Your task to perform on an android device: Add amazon basics triple a to the cart on amazon, then select checkout. Image 0: 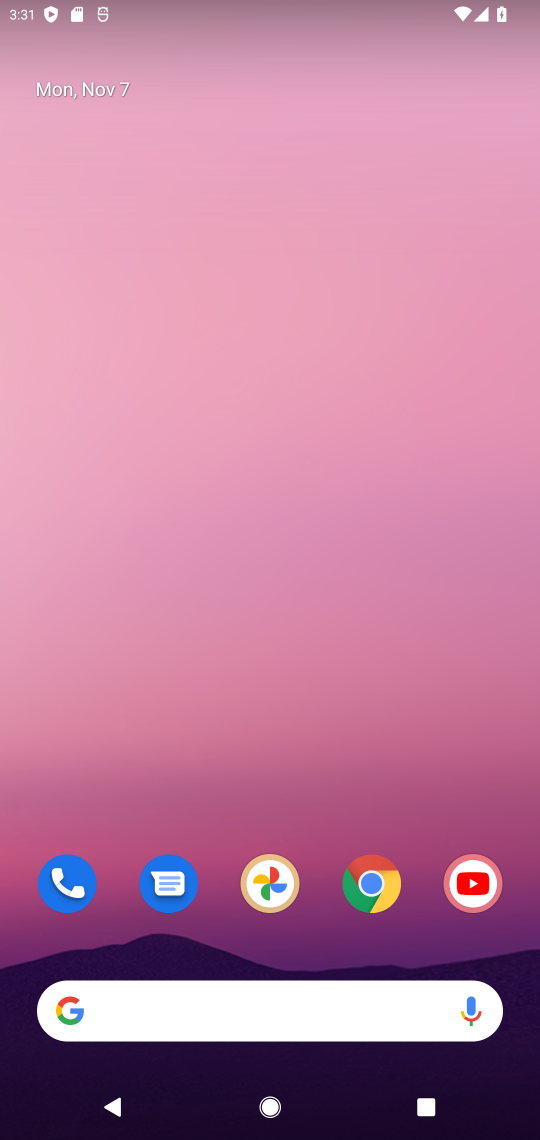
Step 0: click (369, 883)
Your task to perform on an android device: Add amazon basics triple a to the cart on amazon, then select checkout. Image 1: 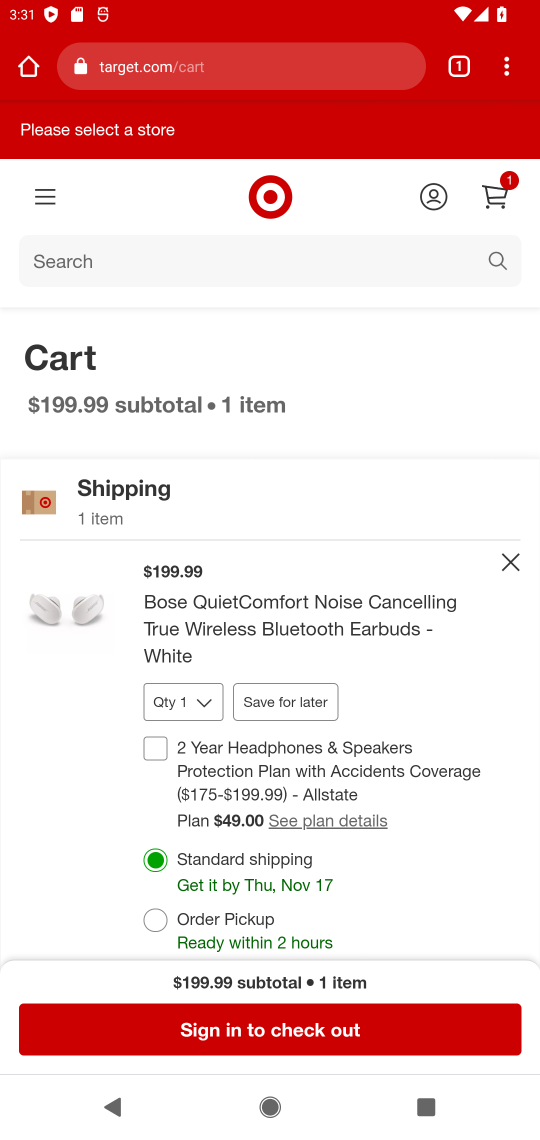
Step 1: click (320, 61)
Your task to perform on an android device: Add amazon basics triple a to the cart on amazon, then select checkout. Image 2: 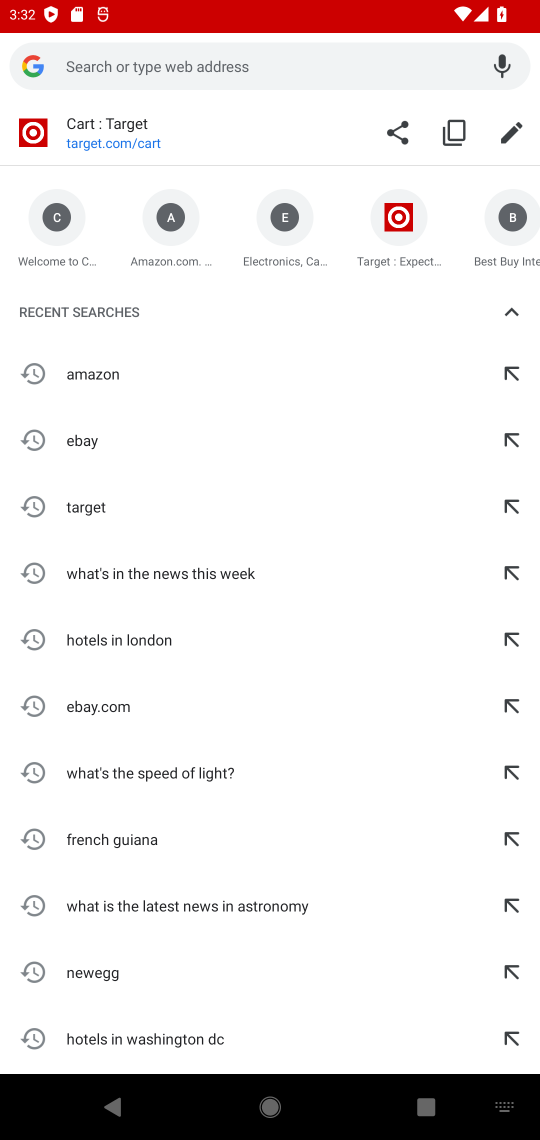
Step 2: type "amazon"
Your task to perform on an android device: Add amazon basics triple a to the cart on amazon, then select checkout. Image 3: 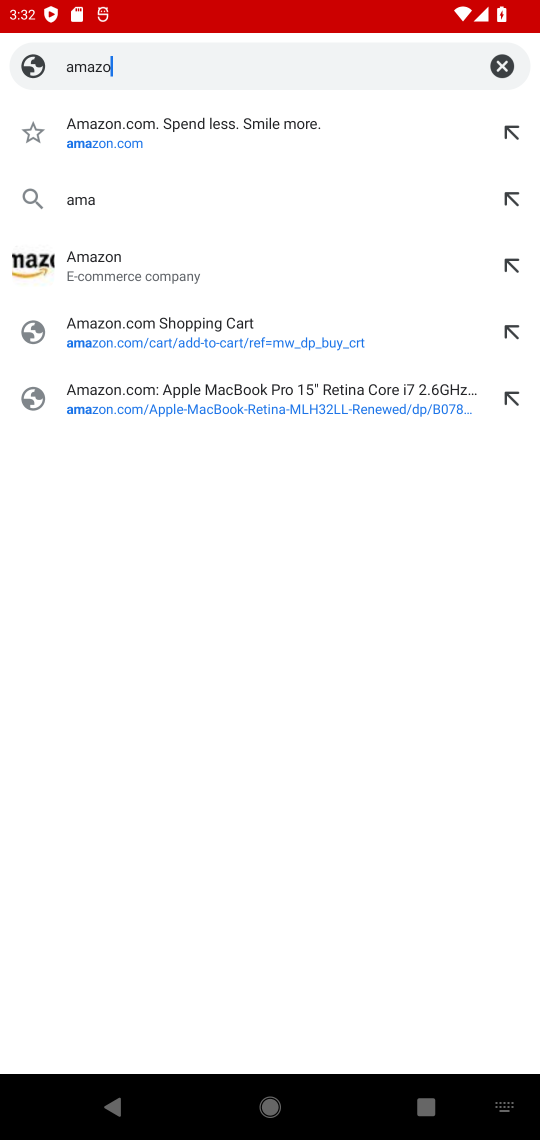
Step 3: press enter
Your task to perform on an android device: Add amazon basics triple a to the cart on amazon, then select checkout. Image 4: 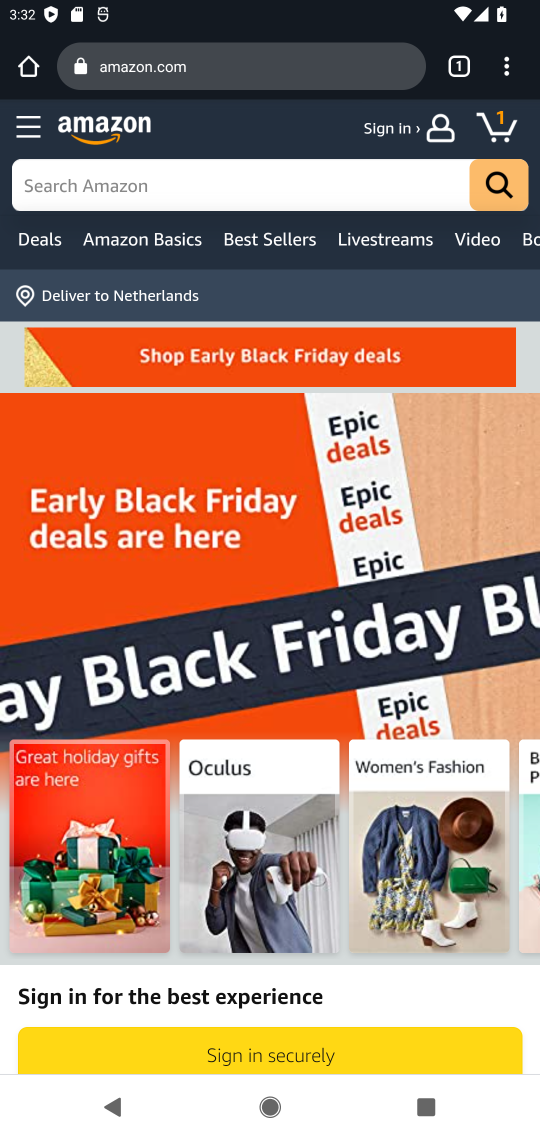
Step 4: click (134, 178)
Your task to perform on an android device: Add amazon basics triple a to the cart on amazon, then select checkout. Image 5: 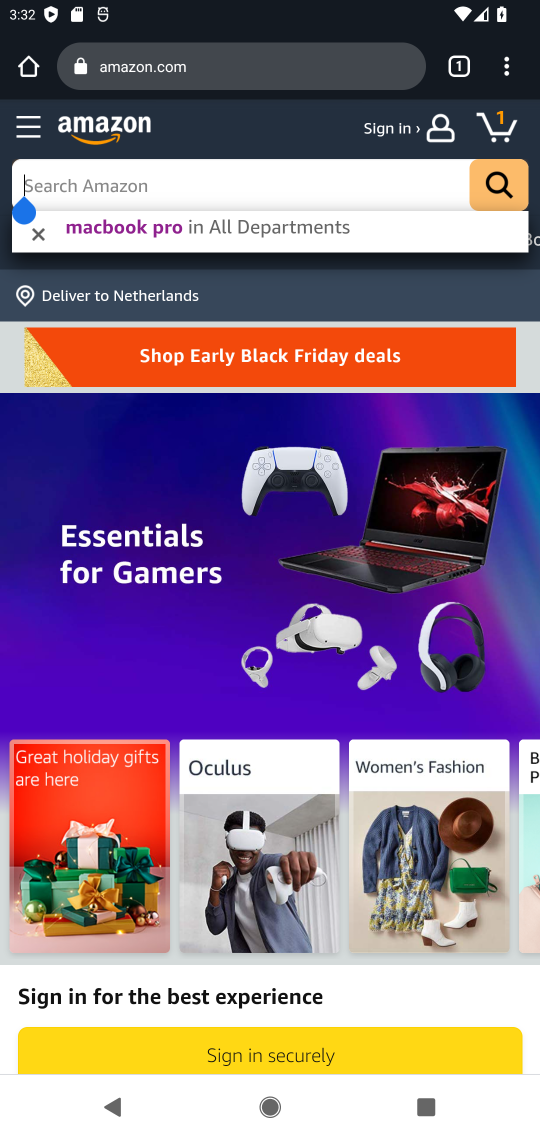
Step 5: type "amazon basics triple a "
Your task to perform on an android device: Add amazon basics triple a to the cart on amazon, then select checkout. Image 6: 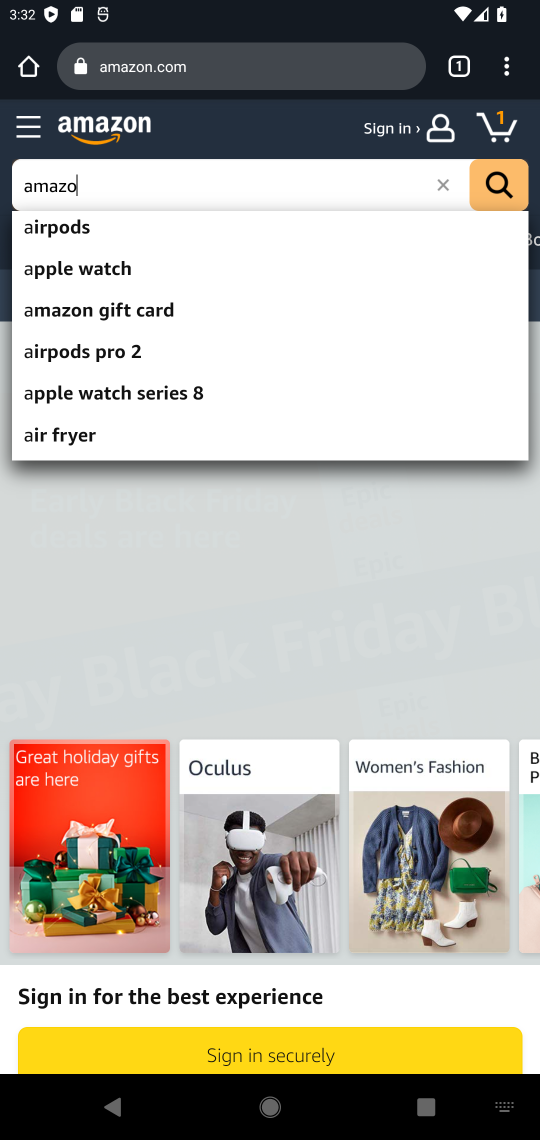
Step 6: press enter
Your task to perform on an android device: Add amazon basics triple a to the cart on amazon, then select checkout. Image 7: 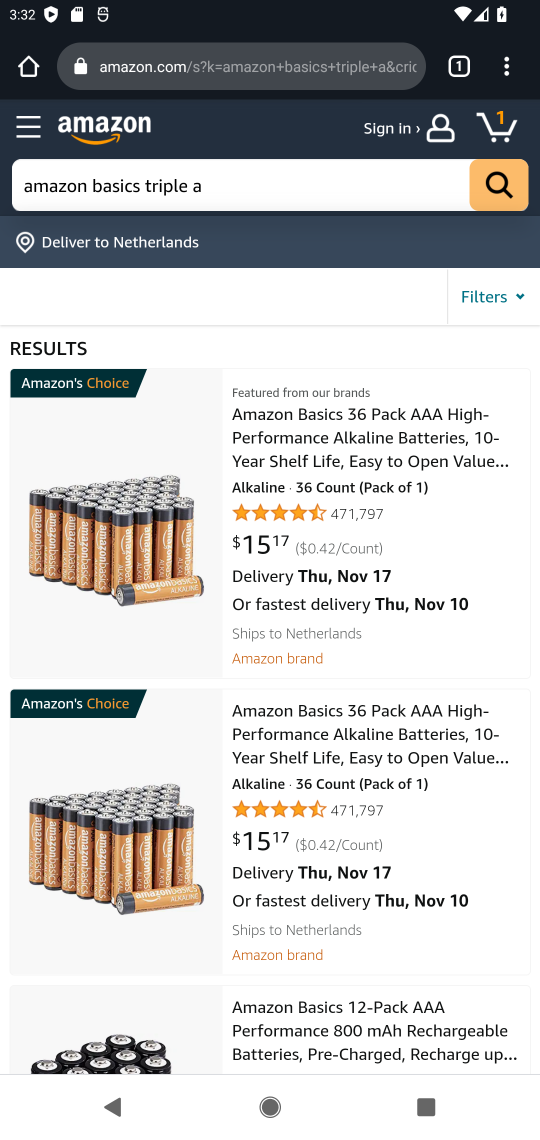
Step 7: click (343, 448)
Your task to perform on an android device: Add amazon basics triple a to the cart on amazon, then select checkout. Image 8: 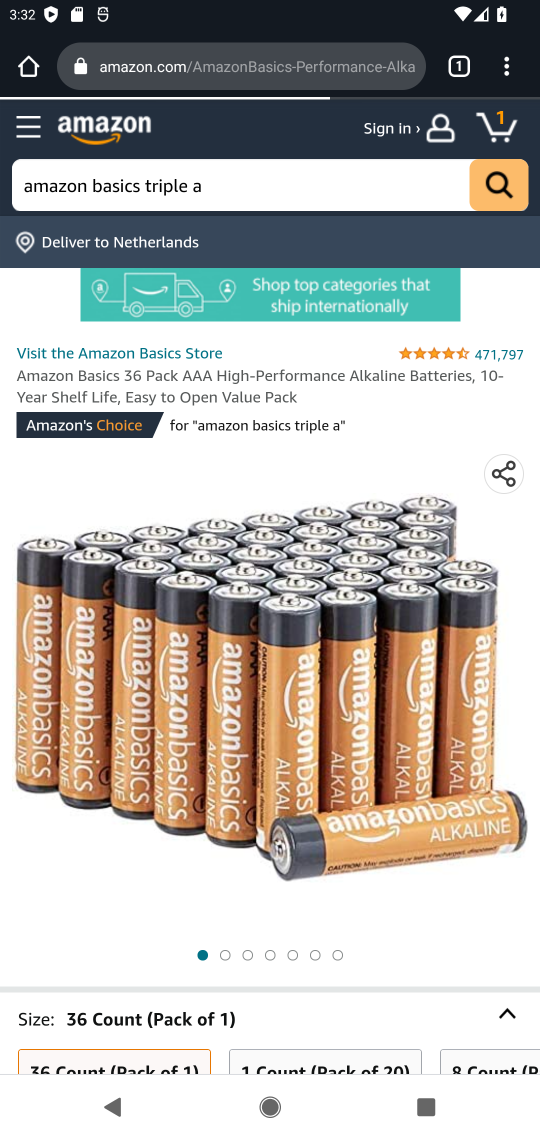
Step 8: drag from (383, 952) to (505, 195)
Your task to perform on an android device: Add amazon basics triple a to the cart on amazon, then select checkout. Image 9: 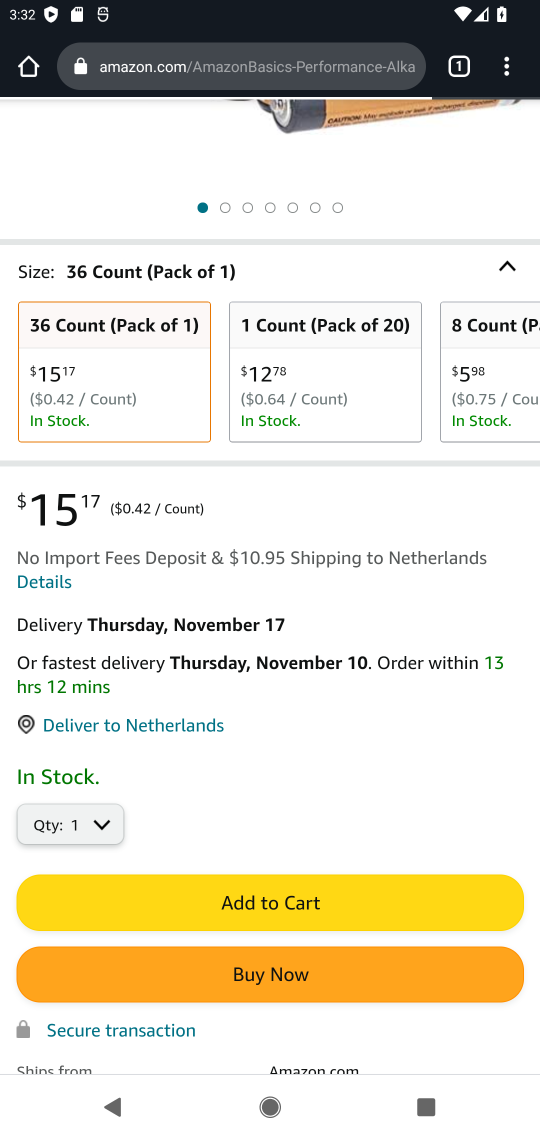
Step 9: click (311, 903)
Your task to perform on an android device: Add amazon basics triple a to the cart on amazon, then select checkout. Image 10: 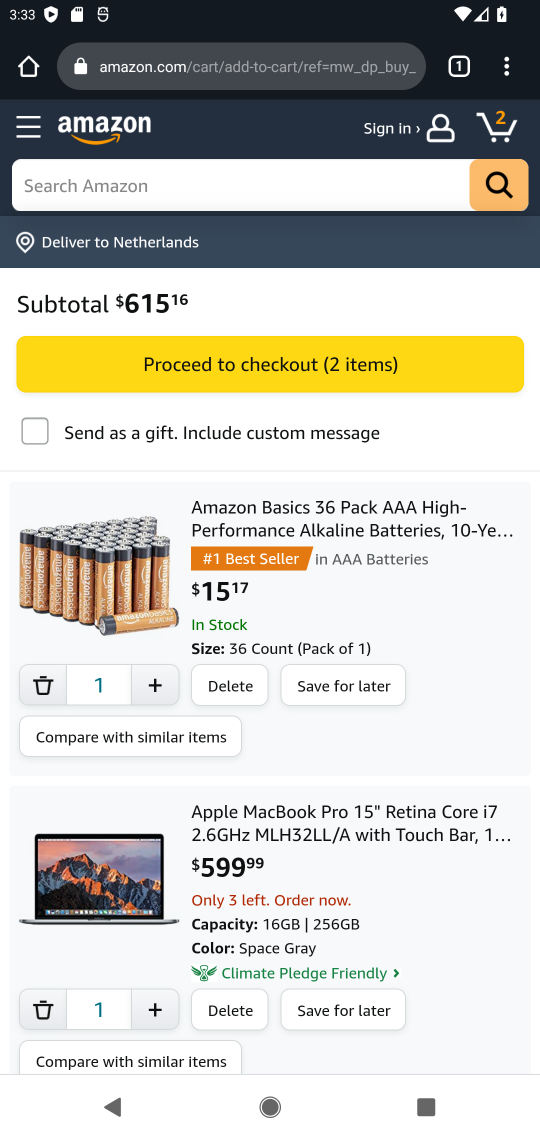
Step 10: drag from (405, 932) to (447, 571)
Your task to perform on an android device: Add amazon basics triple a to the cart on amazon, then select checkout. Image 11: 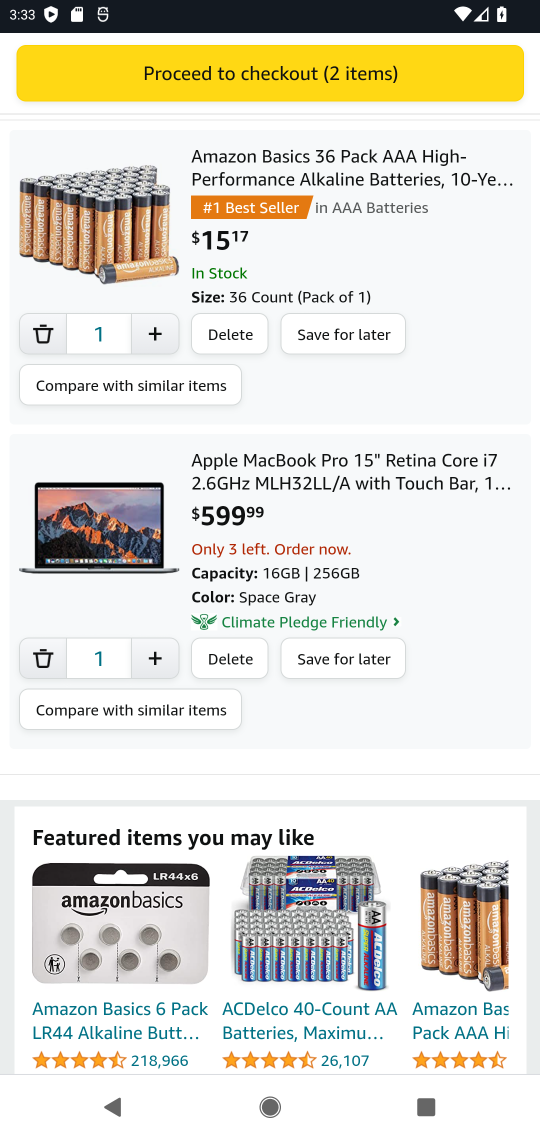
Step 11: click (234, 644)
Your task to perform on an android device: Add amazon basics triple a to the cart on amazon, then select checkout. Image 12: 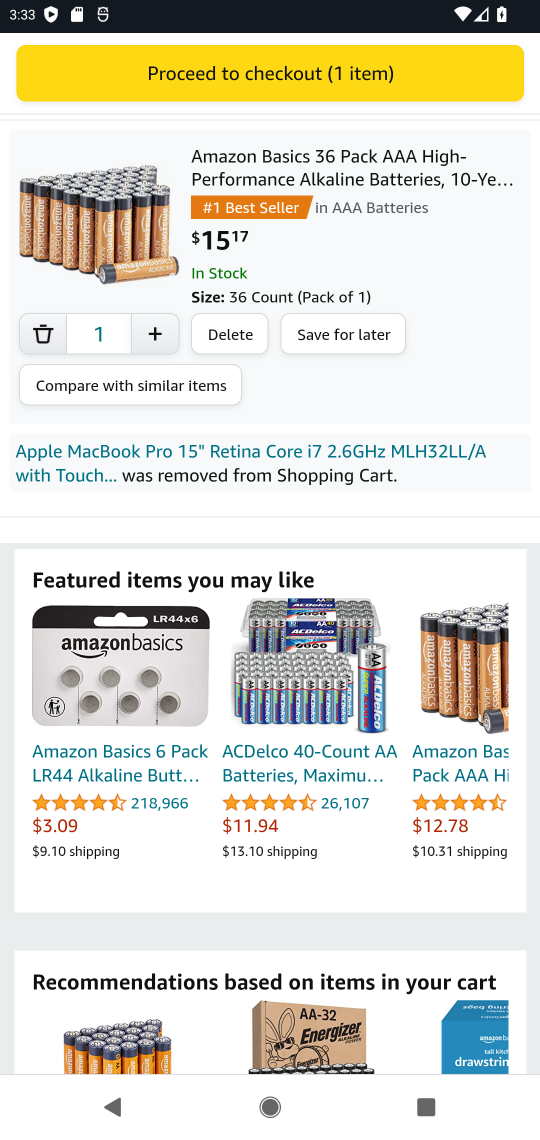
Step 12: task complete